Your task to perform on an android device: remove spam from my inbox in the gmail app Image 0: 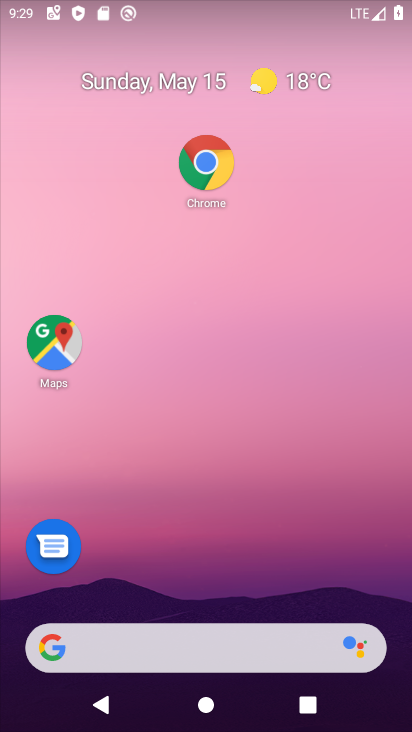
Step 0: drag from (272, 553) to (318, 148)
Your task to perform on an android device: remove spam from my inbox in the gmail app Image 1: 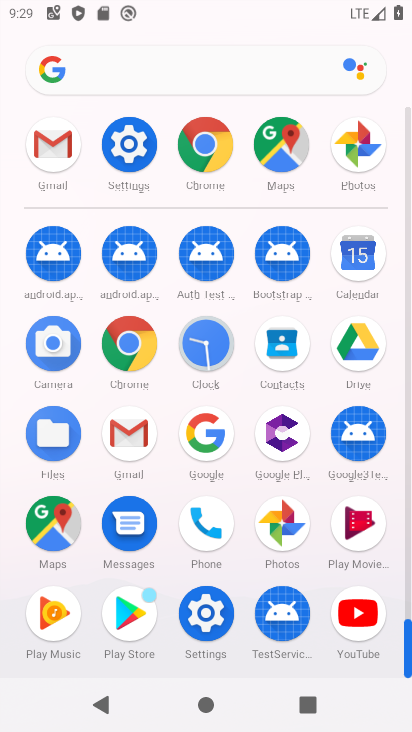
Step 1: click (49, 151)
Your task to perform on an android device: remove spam from my inbox in the gmail app Image 2: 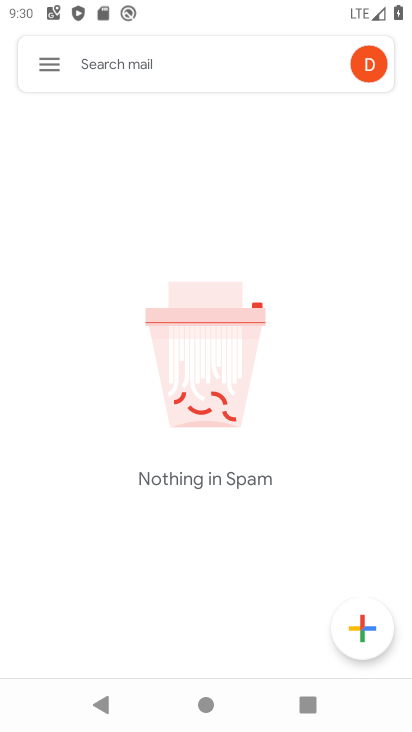
Step 2: click (39, 62)
Your task to perform on an android device: remove spam from my inbox in the gmail app Image 3: 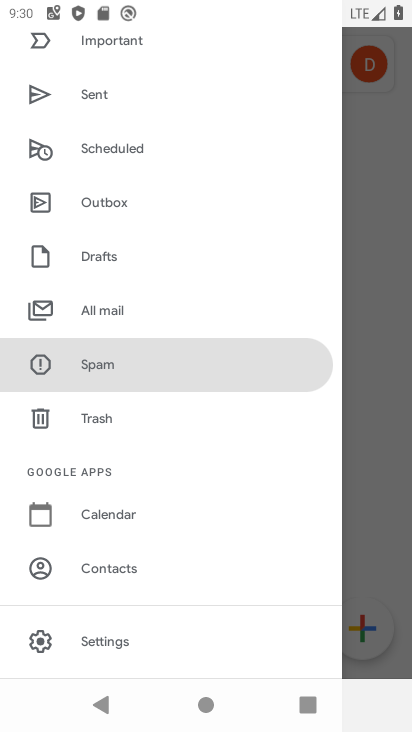
Step 3: click (375, 412)
Your task to perform on an android device: remove spam from my inbox in the gmail app Image 4: 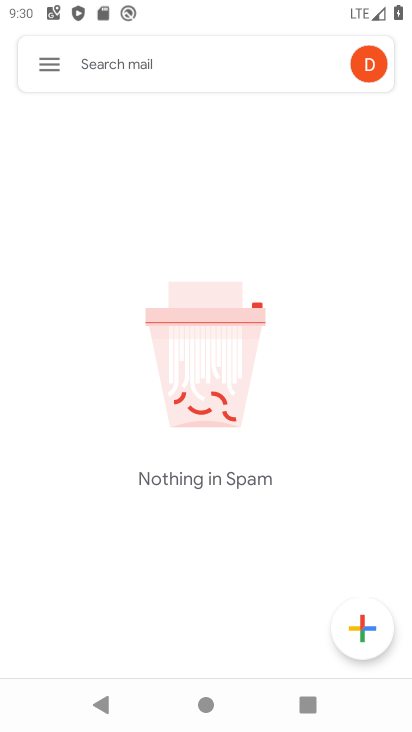
Step 4: task complete